Your task to perform on an android device: turn off location history Image 0: 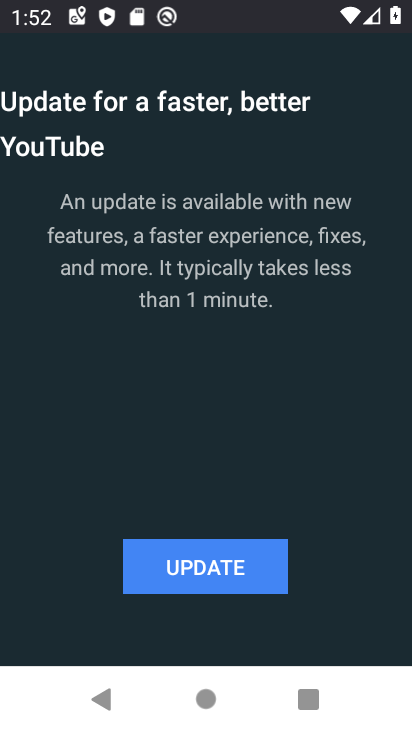
Step 0: press home button
Your task to perform on an android device: turn off location history Image 1: 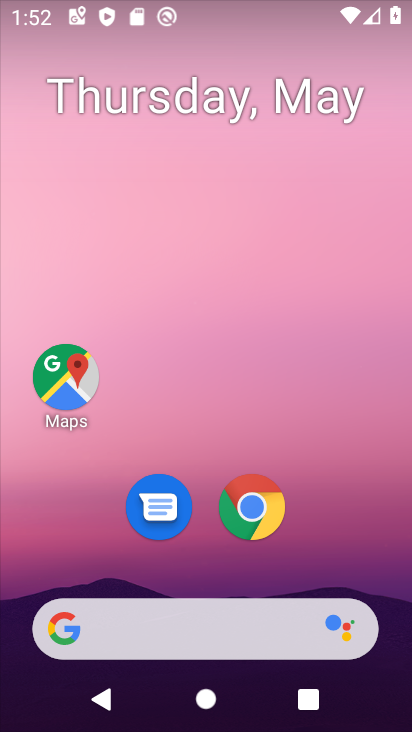
Step 1: click (411, 93)
Your task to perform on an android device: turn off location history Image 2: 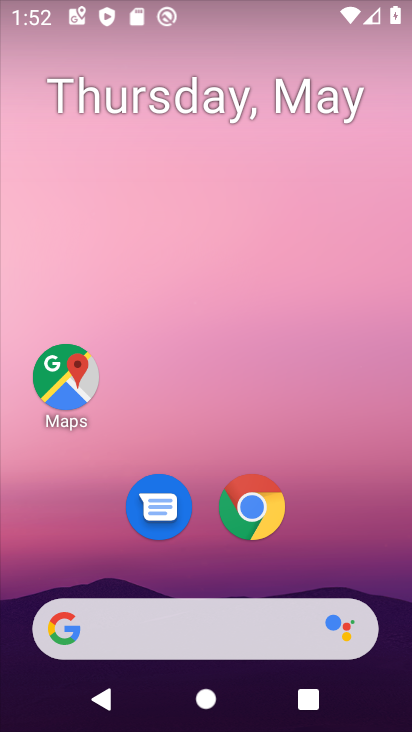
Step 2: drag from (238, 619) to (247, 45)
Your task to perform on an android device: turn off location history Image 3: 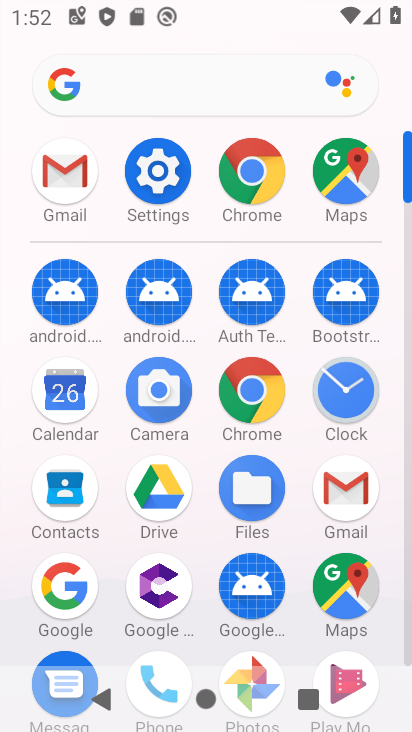
Step 3: click (162, 183)
Your task to perform on an android device: turn off location history Image 4: 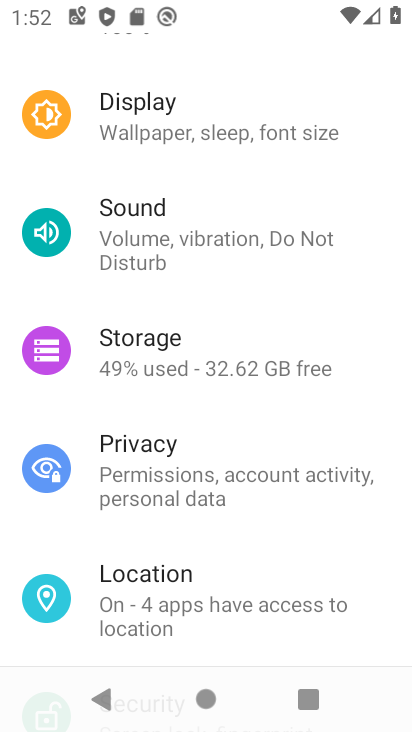
Step 4: click (276, 605)
Your task to perform on an android device: turn off location history Image 5: 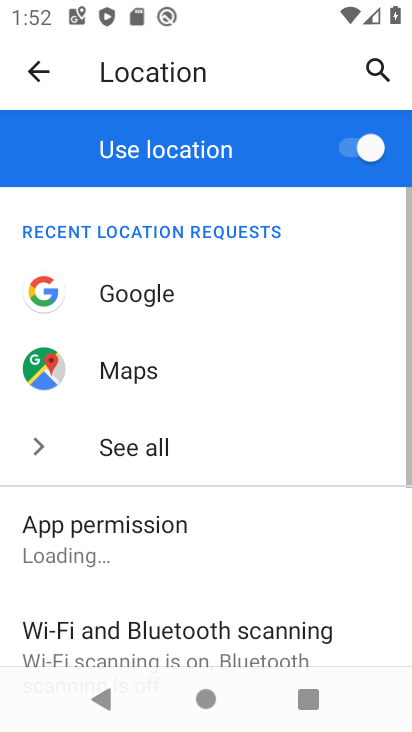
Step 5: drag from (276, 598) to (332, 195)
Your task to perform on an android device: turn off location history Image 6: 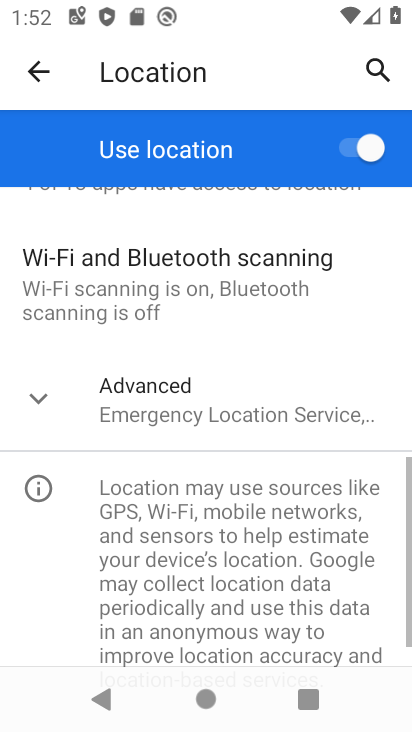
Step 6: click (271, 408)
Your task to perform on an android device: turn off location history Image 7: 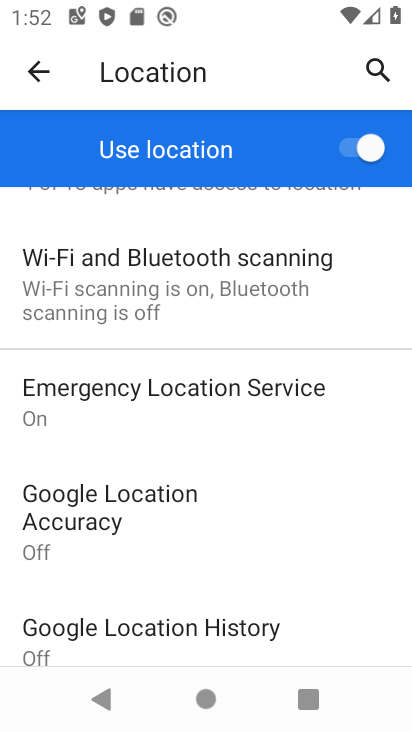
Step 7: click (267, 641)
Your task to perform on an android device: turn off location history Image 8: 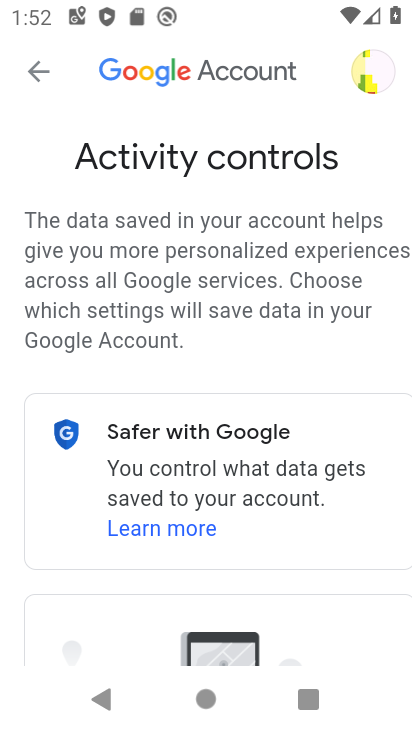
Step 8: task complete